Your task to perform on an android device: turn off priority inbox in the gmail app Image 0: 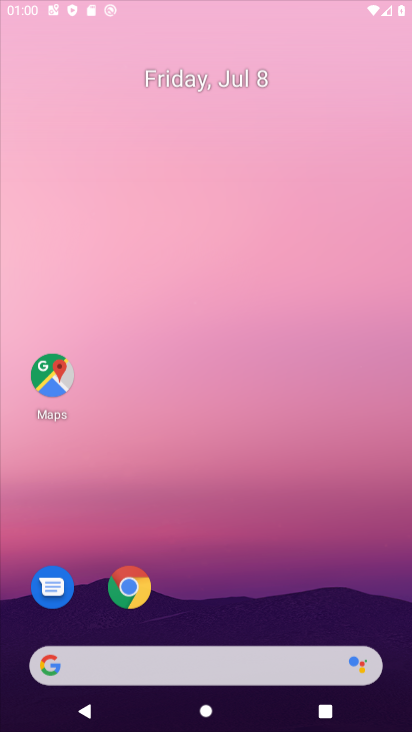
Step 0: click (158, 472)
Your task to perform on an android device: turn off priority inbox in the gmail app Image 1: 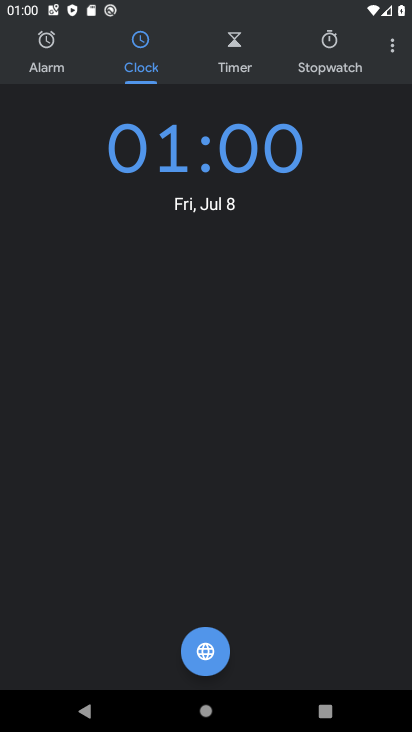
Step 1: press home button
Your task to perform on an android device: turn off priority inbox in the gmail app Image 2: 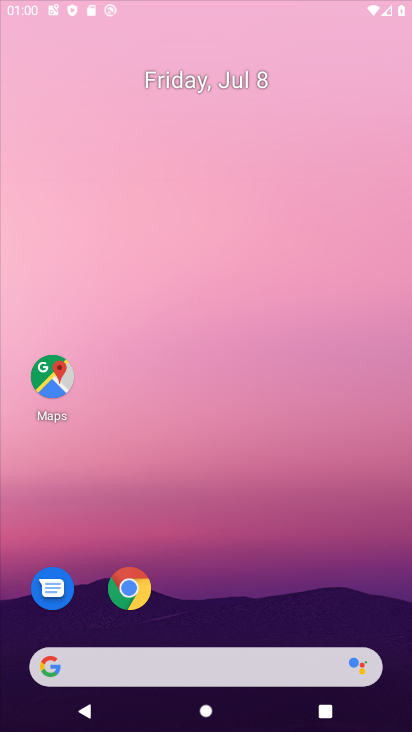
Step 2: drag from (198, 618) to (231, 219)
Your task to perform on an android device: turn off priority inbox in the gmail app Image 3: 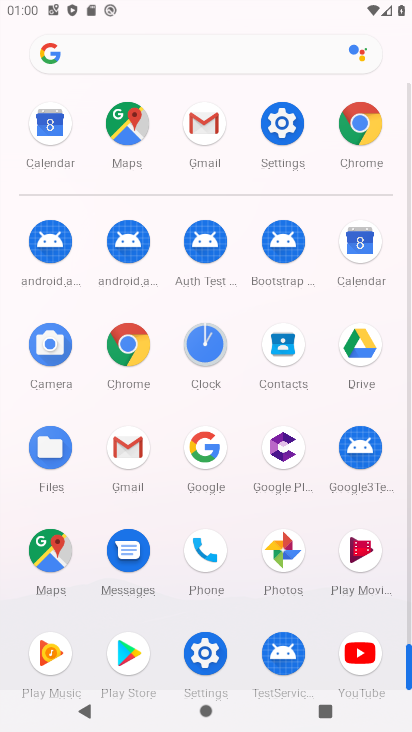
Step 3: click (122, 462)
Your task to perform on an android device: turn off priority inbox in the gmail app Image 4: 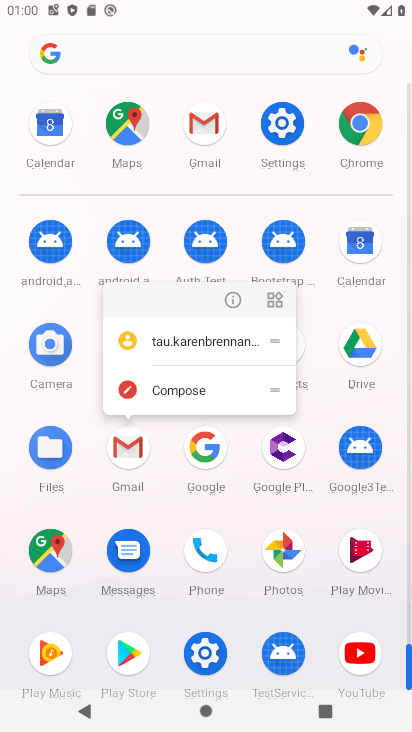
Step 4: click (225, 304)
Your task to perform on an android device: turn off priority inbox in the gmail app Image 5: 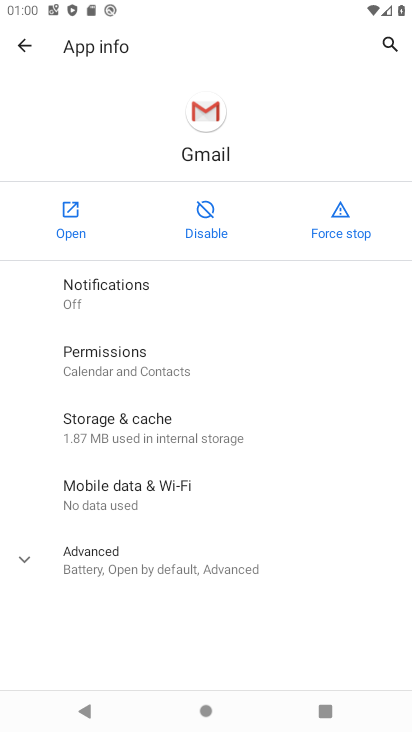
Step 5: click (83, 217)
Your task to perform on an android device: turn off priority inbox in the gmail app Image 6: 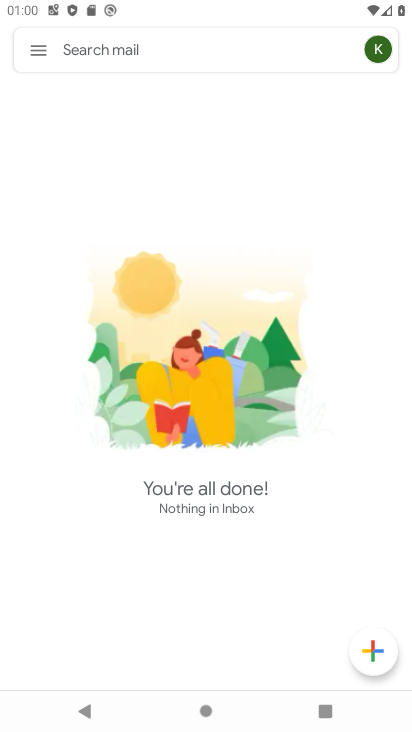
Step 6: click (37, 55)
Your task to perform on an android device: turn off priority inbox in the gmail app Image 7: 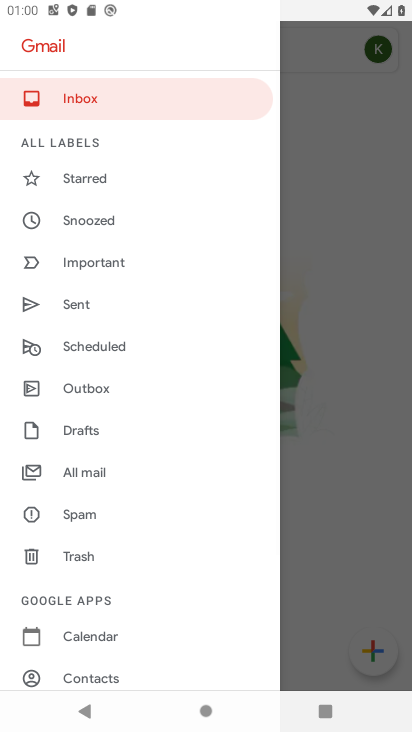
Step 7: drag from (68, 605) to (81, 206)
Your task to perform on an android device: turn off priority inbox in the gmail app Image 8: 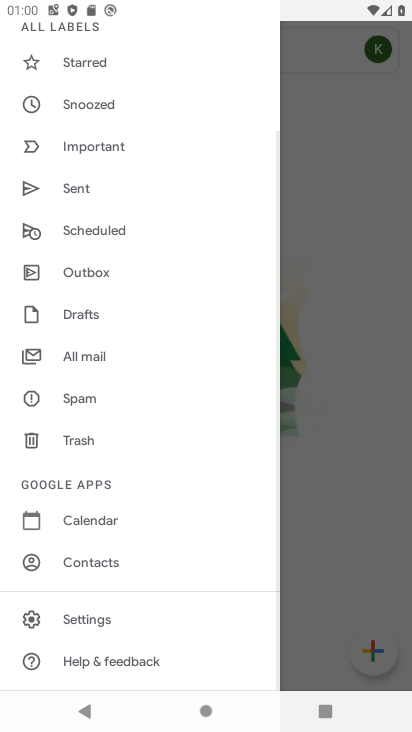
Step 8: click (74, 620)
Your task to perform on an android device: turn off priority inbox in the gmail app Image 9: 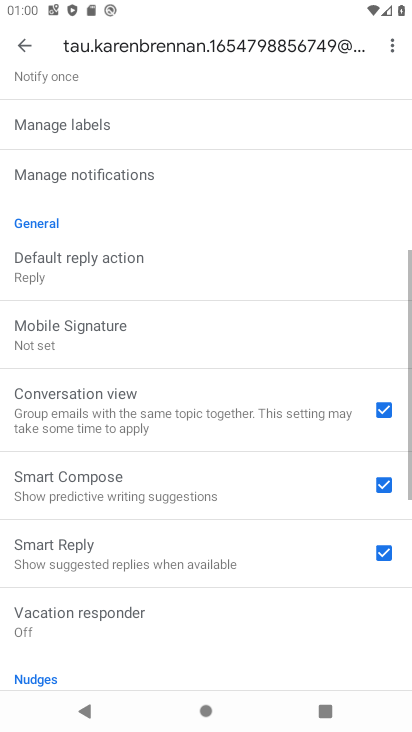
Step 9: drag from (36, 172) to (162, 727)
Your task to perform on an android device: turn off priority inbox in the gmail app Image 10: 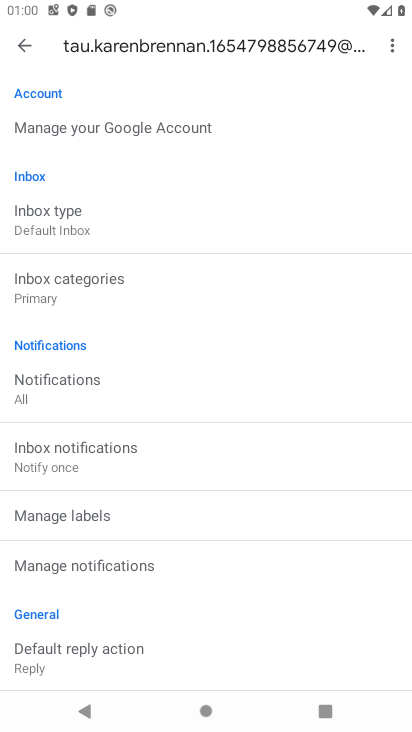
Step 10: click (120, 211)
Your task to perform on an android device: turn off priority inbox in the gmail app Image 11: 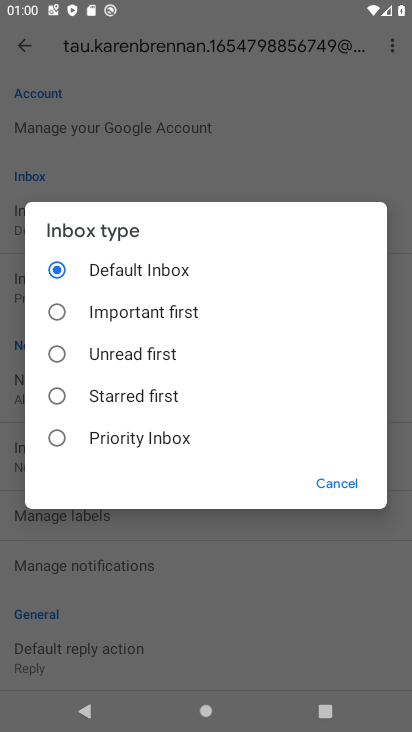
Step 11: task complete